Your task to perform on an android device: What's the weather today? Image 0: 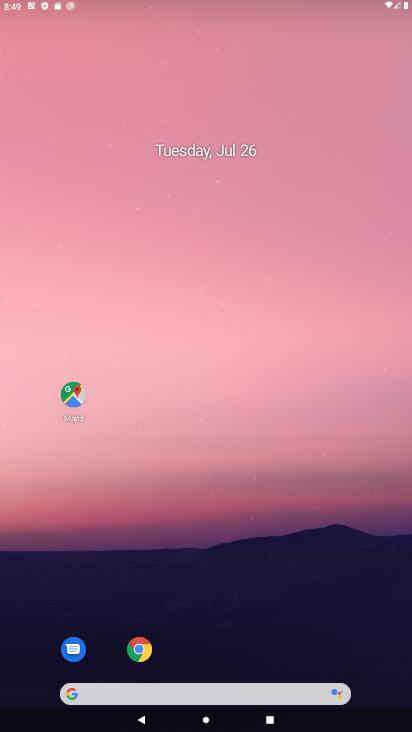
Step 0: drag from (221, 627) to (304, 298)
Your task to perform on an android device: What's the weather today? Image 1: 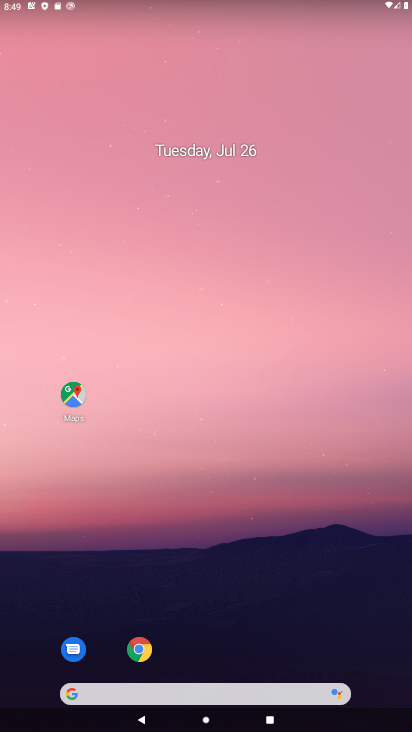
Step 1: drag from (227, 515) to (322, 319)
Your task to perform on an android device: What's the weather today? Image 2: 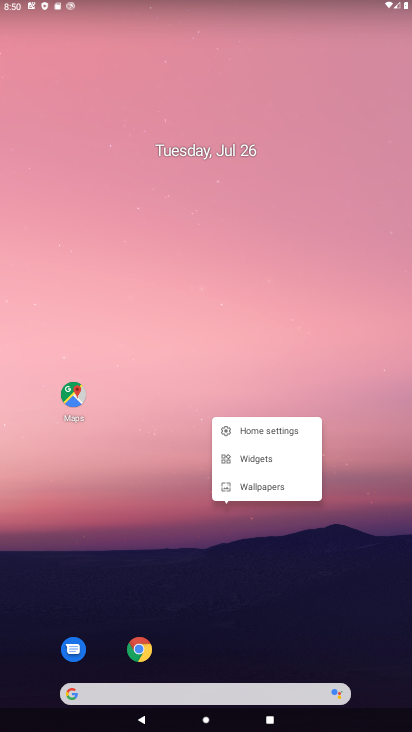
Step 2: drag from (205, 649) to (247, 291)
Your task to perform on an android device: What's the weather today? Image 3: 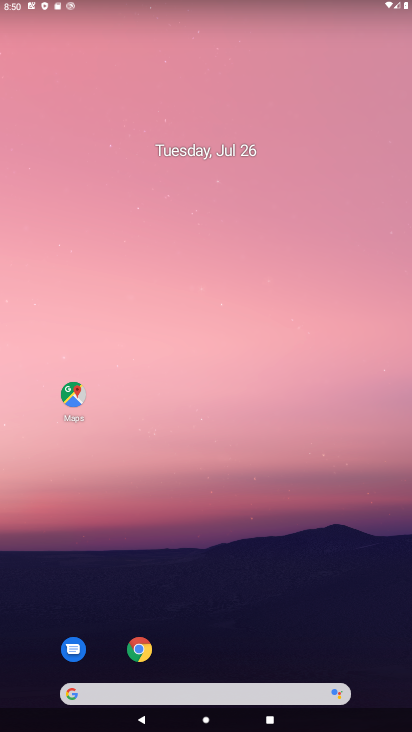
Step 3: drag from (215, 648) to (347, 114)
Your task to perform on an android device: What's the weather today? Image 4: 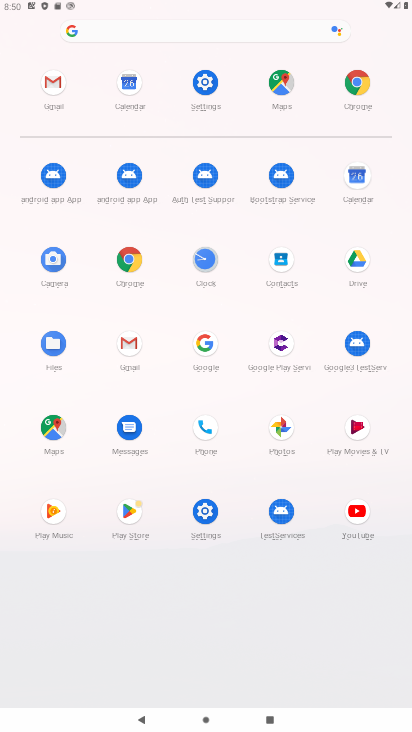
Step 4: click (207, 27)
Your task to perform on an android device: What's the weather today? Image 5: 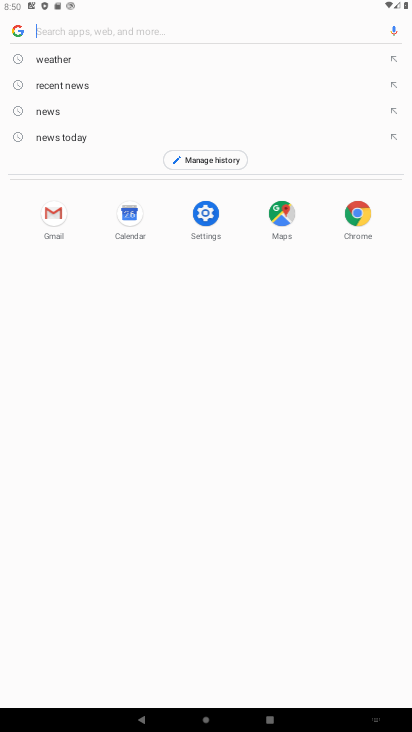
Step 5: click (28, 41)
Your task to perform on an android device: What's the weather today? Image 6: 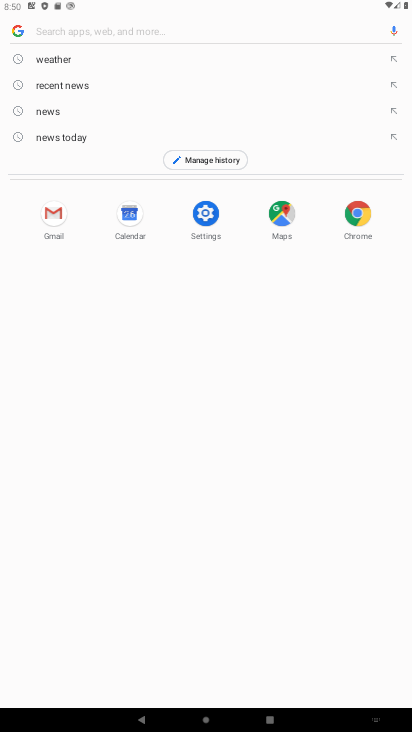
Step 6: click (44, 54)
Your task to perform on an android device: What's the weather today? Image 7: 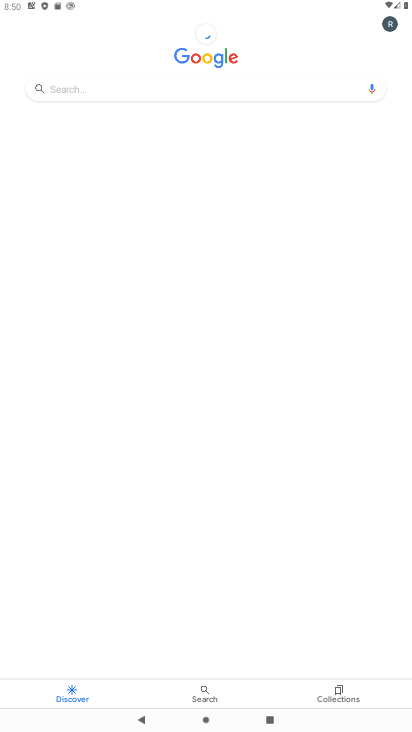
Step 7: drag from (117, 479) to (126, 366)
Your task to perform on an android device: What's the weather today? Image 8: 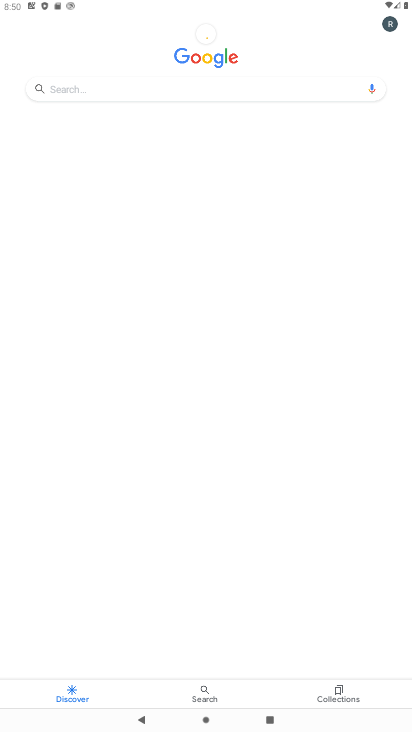
Step 8: drag from (153, 205) to (223, 358)
Your task to perform on an android device: What's the weather today? Image 9: 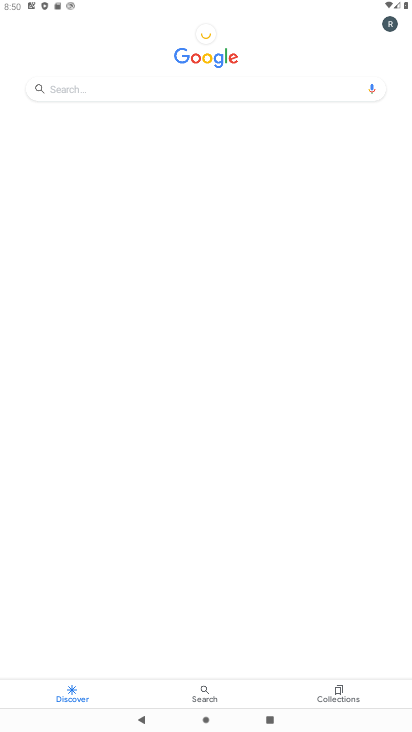
Step 9: click (163, 91)
Your task to perform on an android device: What's the weather today? Image 10: 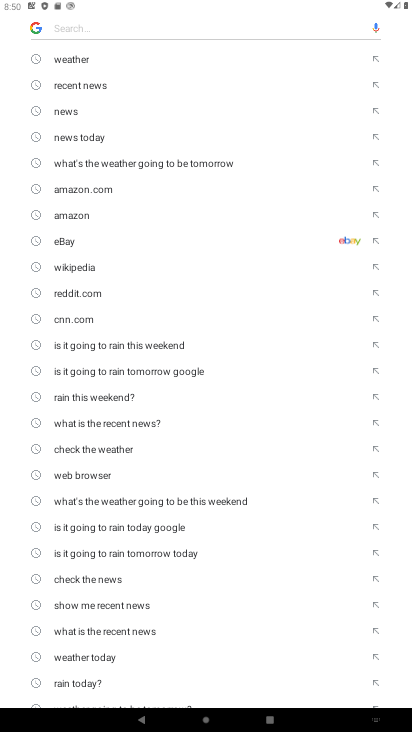
Step 10: click (82, 64)
Your task to perform on an android device: What's the weather today? Image 11: 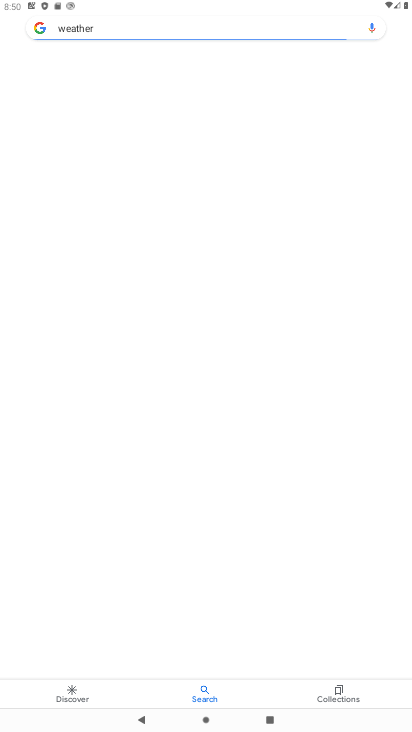
Step 11: task complete